Your task to perform on an android device: allow cookies in the chrome app Image 0: 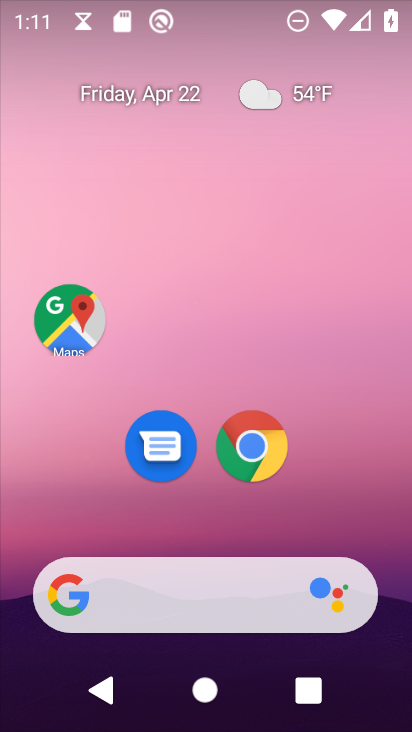
Step 0: click (268, 444)
Your task to perform on an android device: allow cookies in the chrome app Image 1: 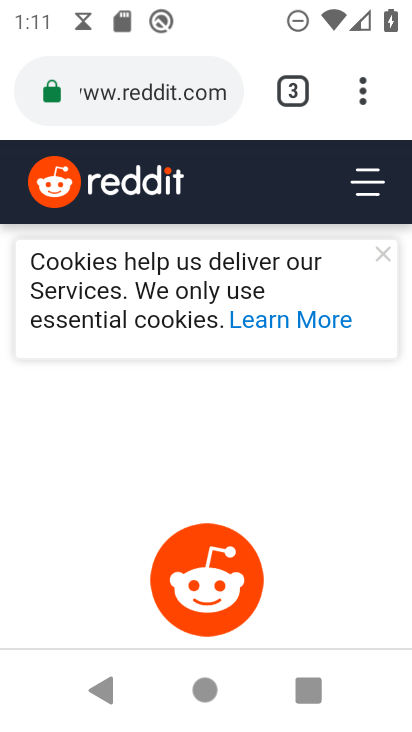
Step 1: drag from (364, 96) to (238, 469)
Your task to perform on an android device: allow cookies in the chrome app Image 2: 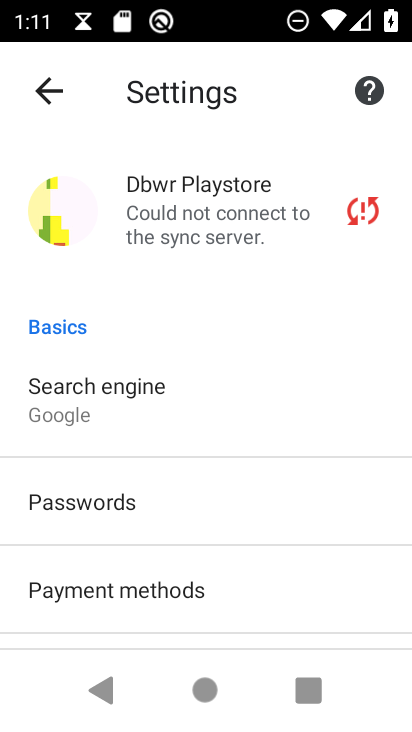
Step 2: drag from (274, 533) to (241, 170)
Your task to perform on an android device: allow cookies in the chrome app Image 3: 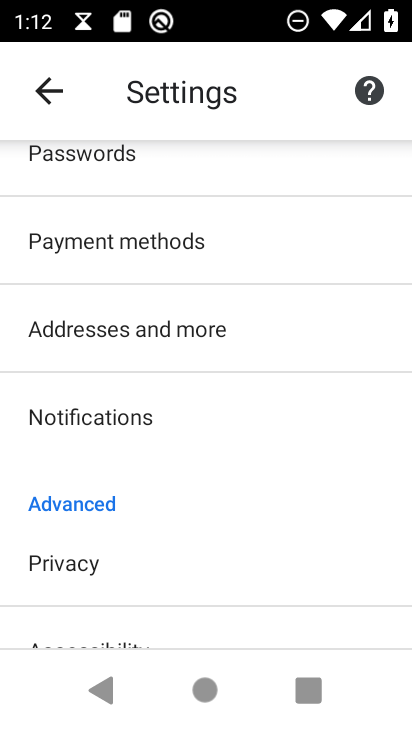
Step 3: drag from (300, 527) to (267, 230)
Your task to perform on an android device: allow cookies in the chrome app Image 4: 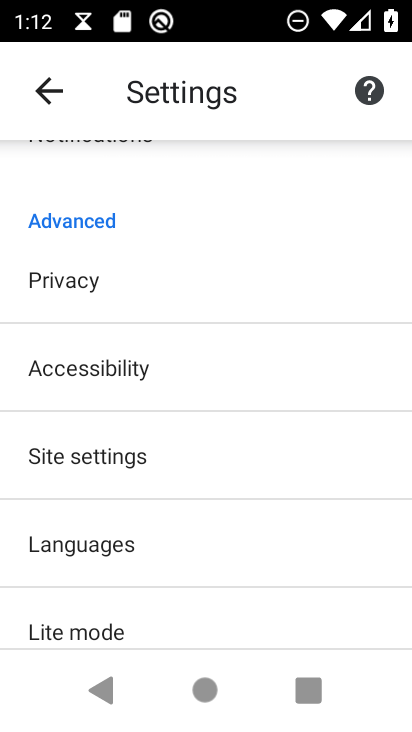
Step 4: click (273, 452)
Your task to perform on an android device: allow cookies in the chrome app Image 5: 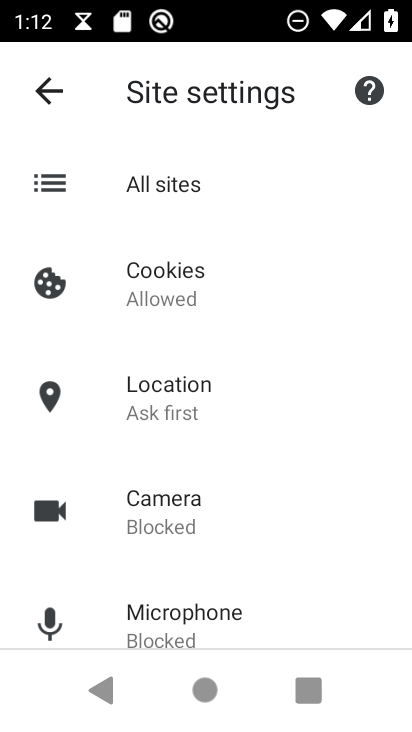
Step 5: click (264, 292)
Your task to perform on an android device: allow cookies in the chrome app Image 6: 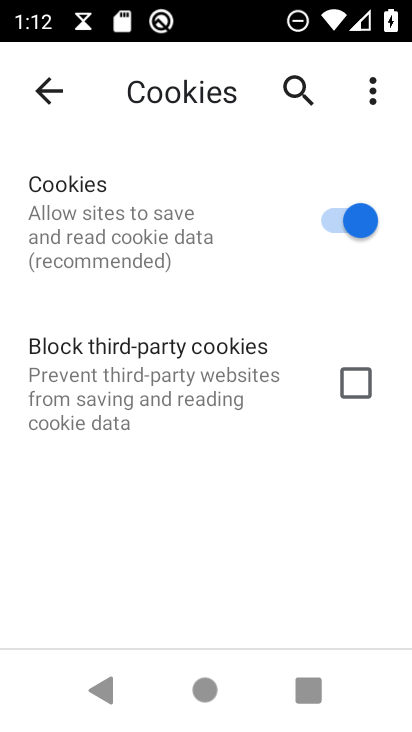
Step 6: task complete